Your task to perform on an android device: toggle priority inbox in the gmail app Image 0: 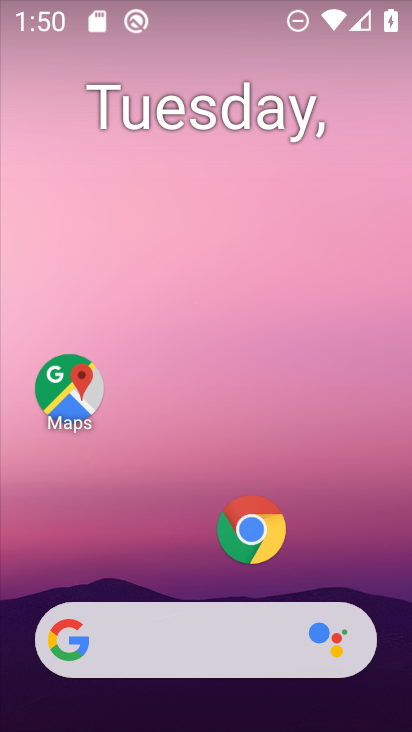
Step 0: press home button
Your task to perform on an android device: toggle priority inbox in the gmail app Image 1: 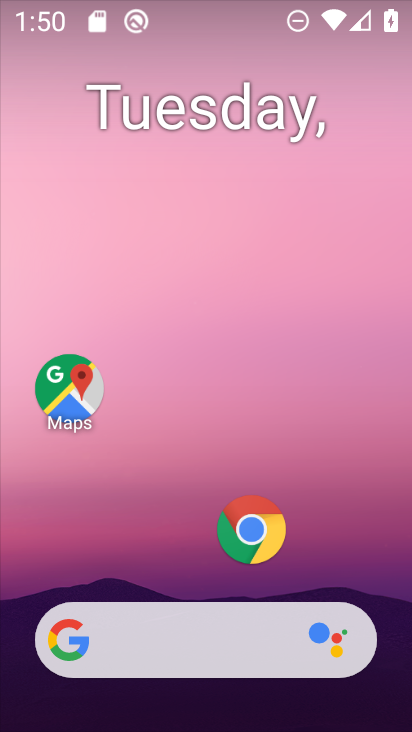
Step 1: drag from (199, 691) to (232, 275)
Your task to perform on an android device: toggle priority inbox in the gmail app Image 2: 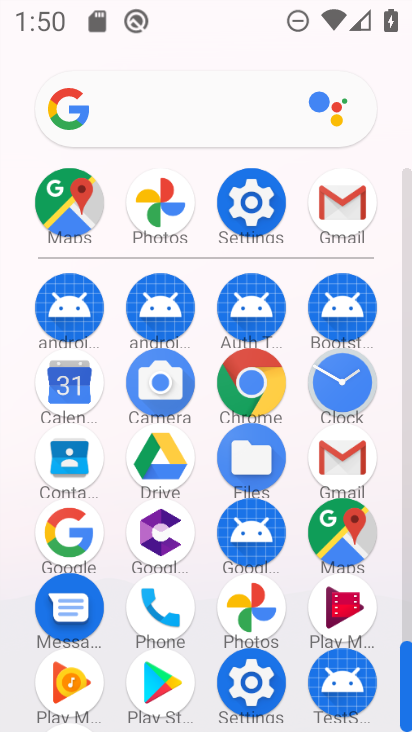
Step 2: click (347, 211)
Your task to perform on an android device: toggle priority inbox in the gmail app Image 3: 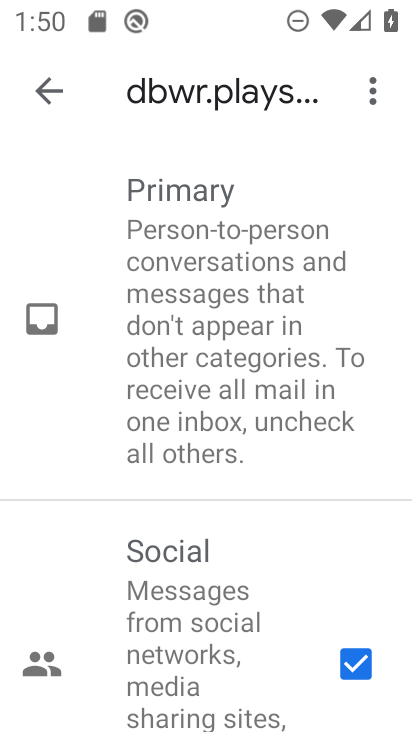
Step 3: click (53, 79)
Your task to perform on an android device: toggle priority inbox in the gmail app Image 4: 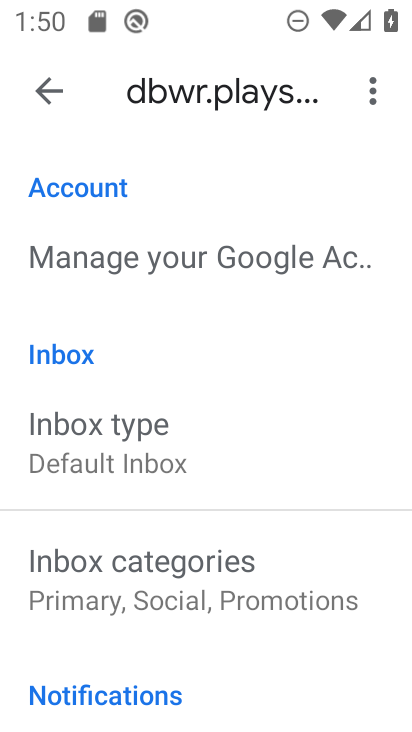
Step 4: click (140, 448)
Your task to perform on an android device: toggle priority inbox in the gmail app Image 5: 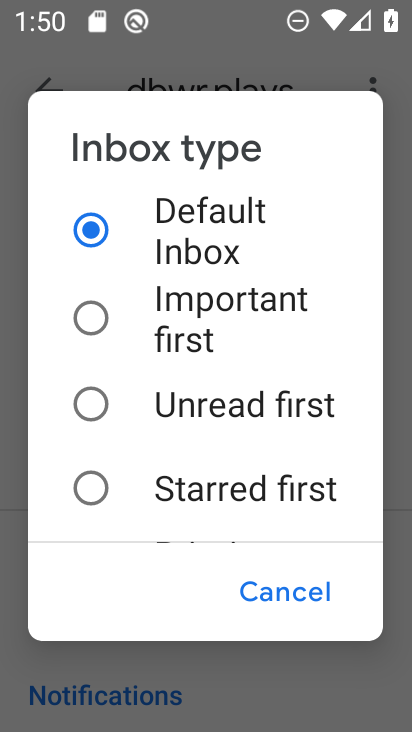
Step 5: drag from (140, 465) to (165, 281)
Your task to perform on an android device: toggle priority inbox in the gmail app Image 6: 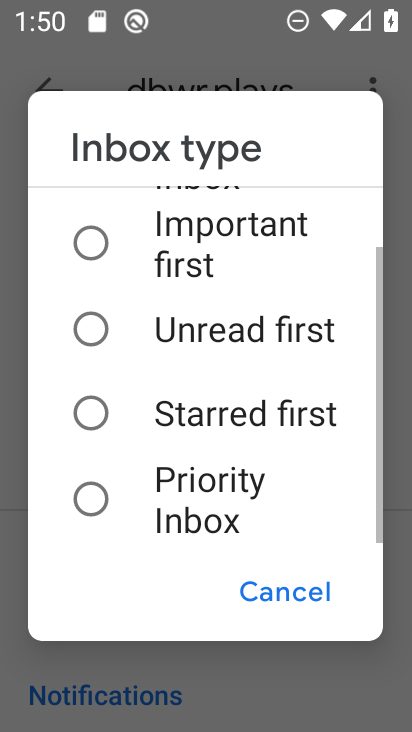
Step 6: click (130, 501)
Your task to perform on an android device: toggle priority inbox in the gmail app Image 7: 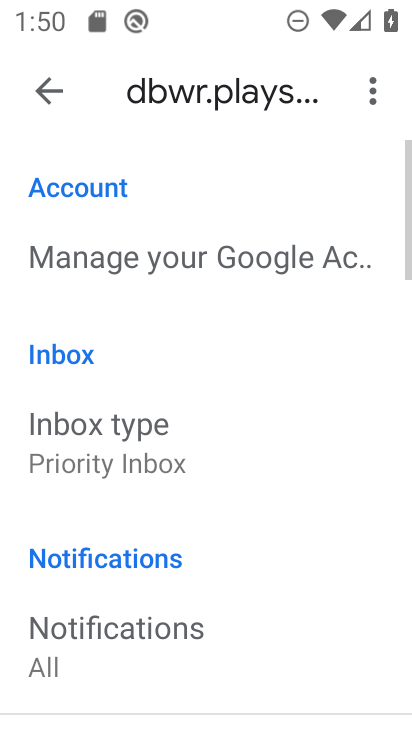
Step 7: task complete